Your task to perform on an android device: check android version Image 0: 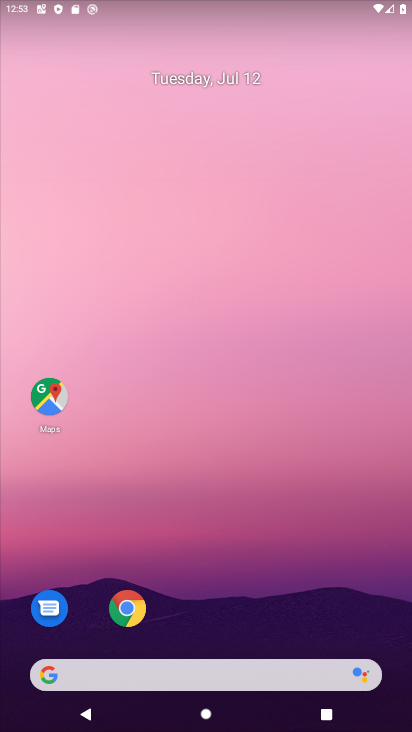
Step 0: click (231, 169)
Your task to perform on an android device: check android version Image 1: 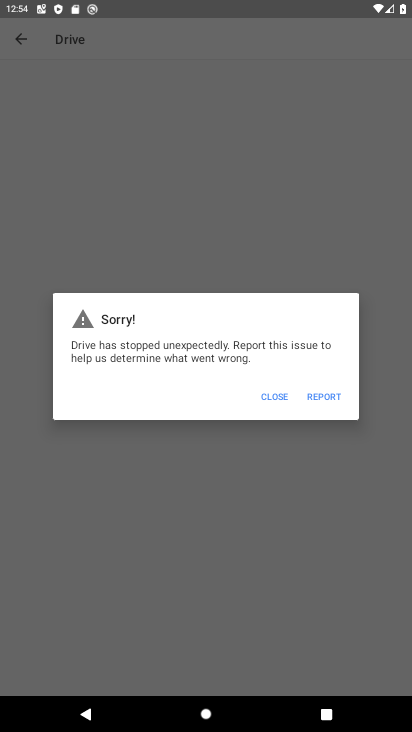
Step 1: click (262, 399)
Your task to perform on an android device: check android version Image 2: 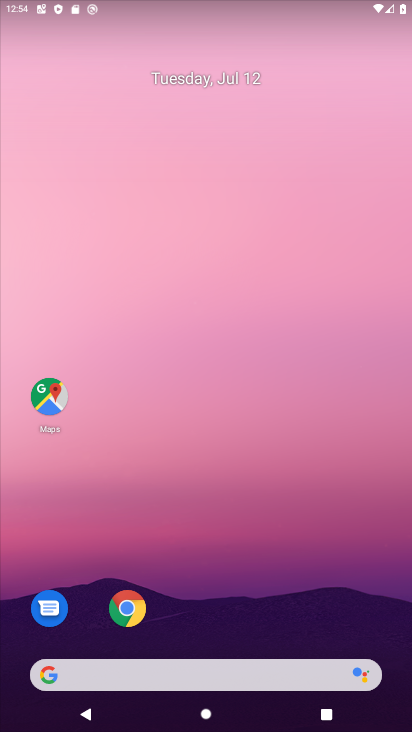
Step 2: drag from (220, 538) to (225, 102)
Your task to perform on an android device: check android version Image 3: 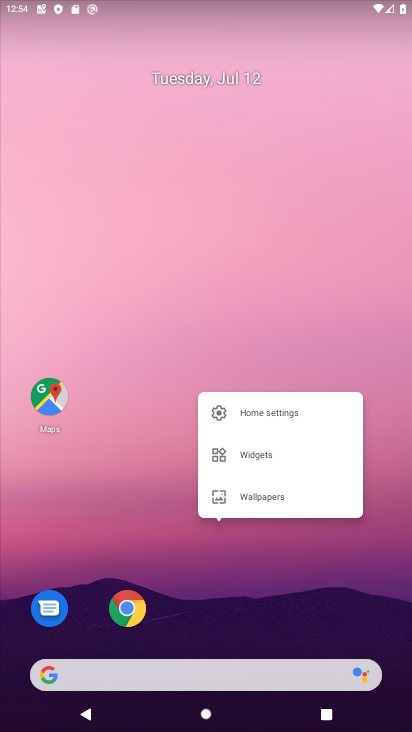
Step 3: click (112, 516)
Your task to perform on an android device: check android version Image 4: 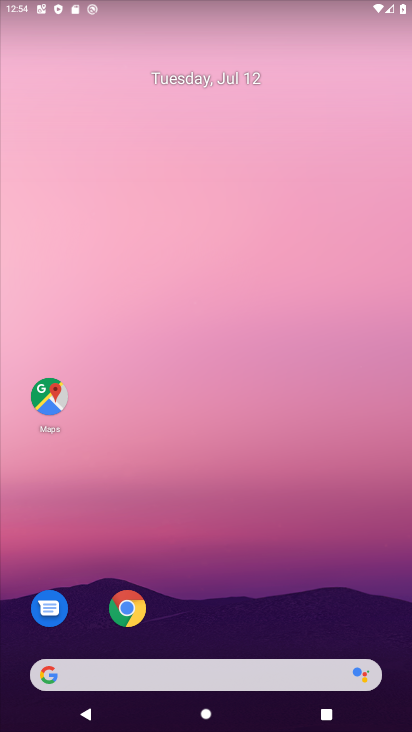
Step 4: drag from (177, 629) to (189, 1)
Your task to perform on an android device: check android version Image 5: 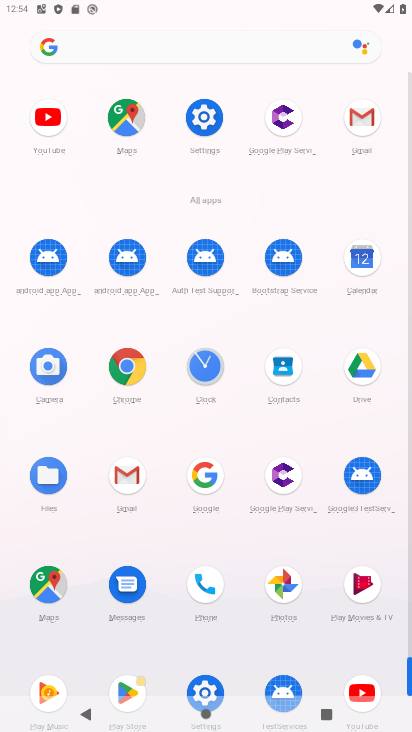
Step 5: click (206, 114)
Your task to perform on an android device: check android version Image 6: 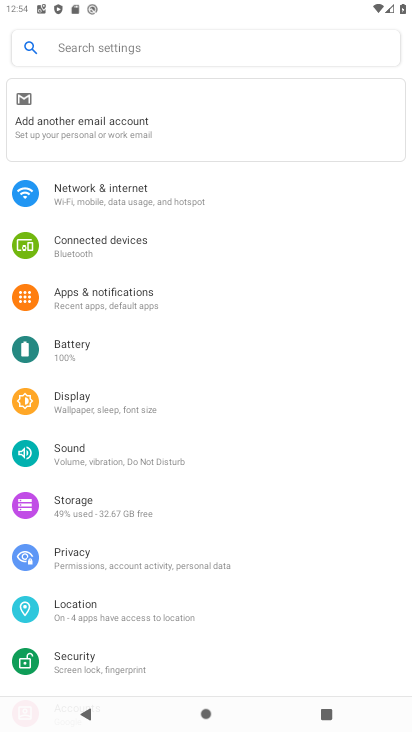
Step 6: drag from (164, 651) to (182, 202)
Your task to perform on an android device: check android version Image 7: 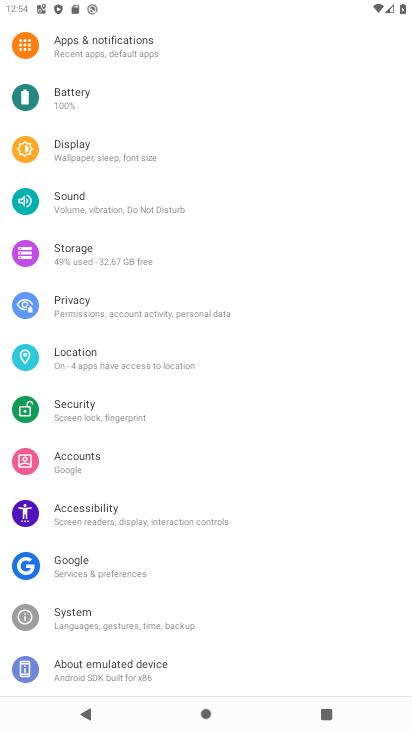
Step 7: click (100, 675)
Your task to perform on an android device: check android version Image 8: 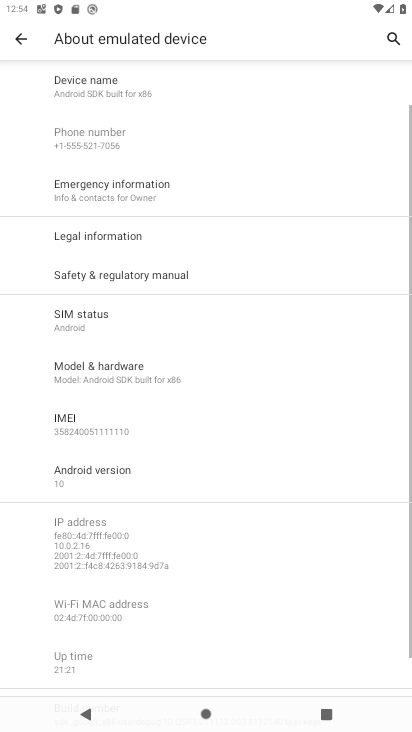
Step 8: drag from (162, 573) to (170, 470)
Your task to perform on an android device: check android version Image 9: 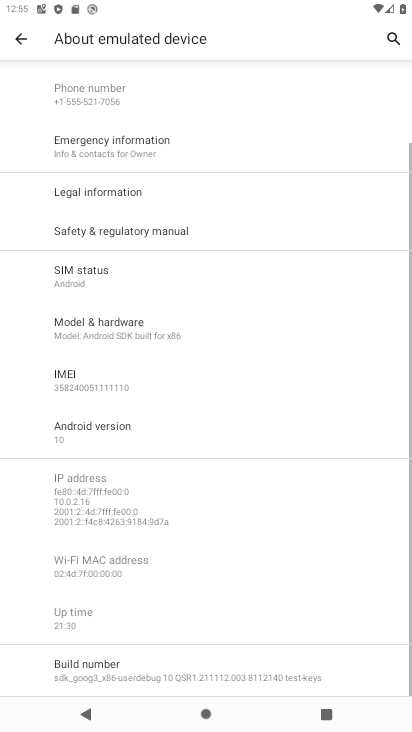
Step 9: drag from (155, 632) to (245, 268)
Your task to perform on an android device: check android version Image 10: 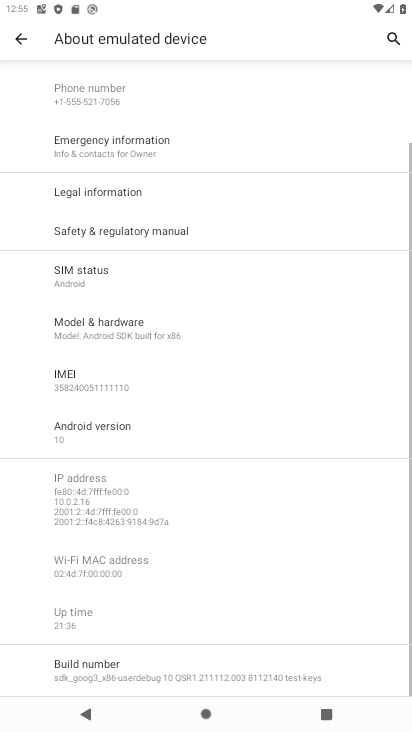
Step 10: drag from (194, 183) to (176, 653)
Your task to perform on an android device: check android version Image 11: 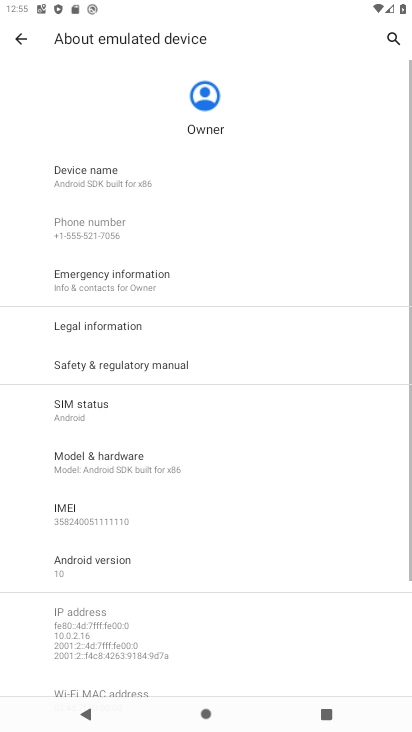
Step 11: click (137, 285)
Your task to perform on an android device: check android version Image 12: 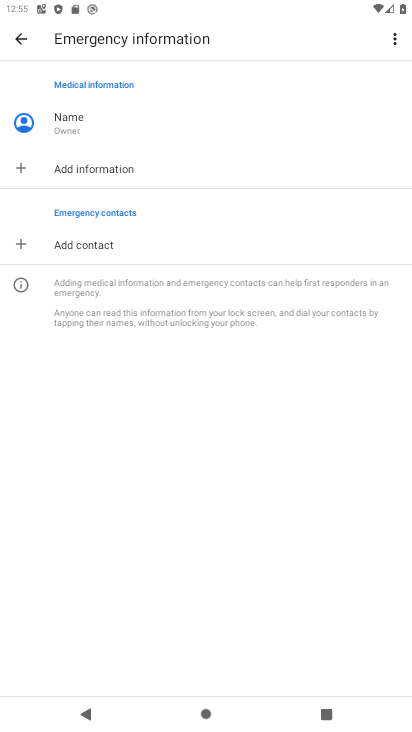
Step 12: click (22, 39)
Your task to perform on an android device: check android version Image 13: 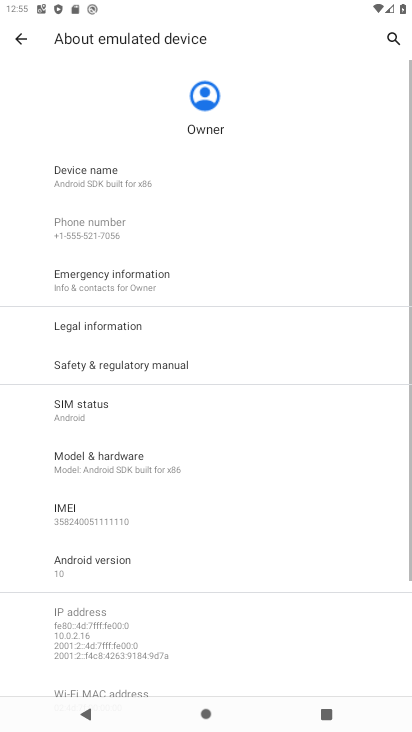
Step 13: click (140, 574)
Your task to perform on an android device: check android version Image 14: 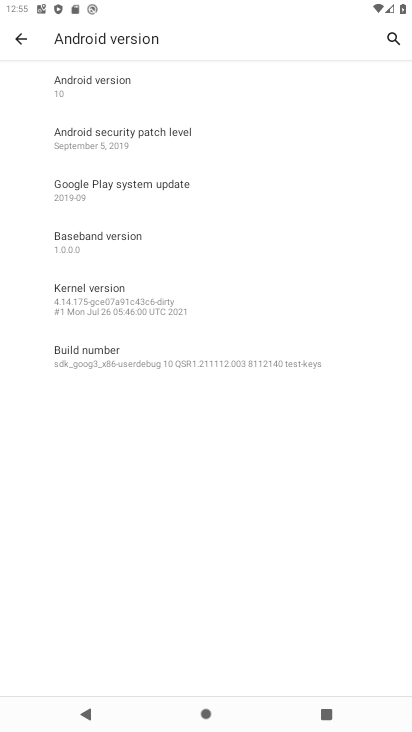
Step 14: task complete